Your task to perform on an android device: Open Google Image 0: 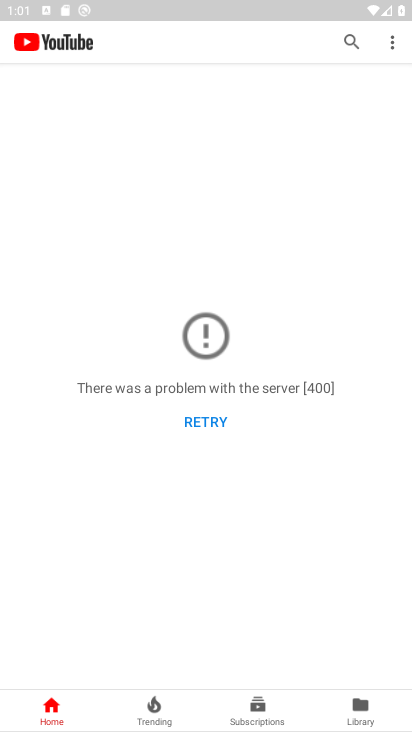
Step 0: press home button
Your task to perform on an android device: Open Google Image 1: 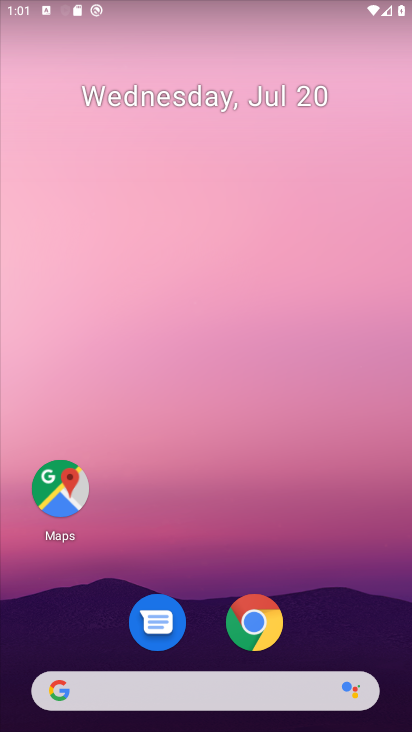
Step 1: drag from (198, 568) to (157, 230)
Your task to perform on an android device: Open Google Image 2: 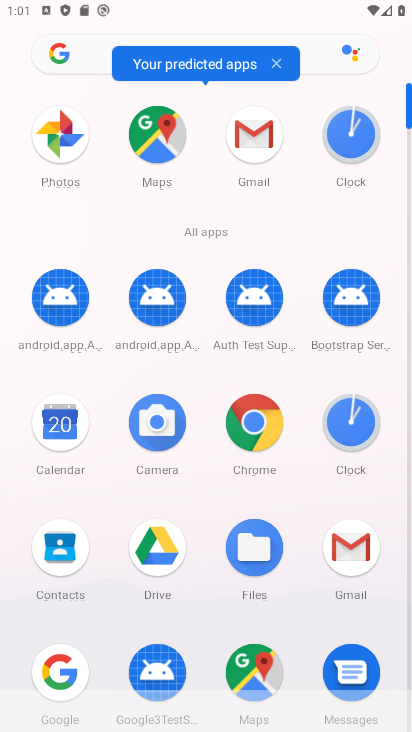
Step 2: click (63, 669)
Your task to perform on an android device: Open Google Image 3: 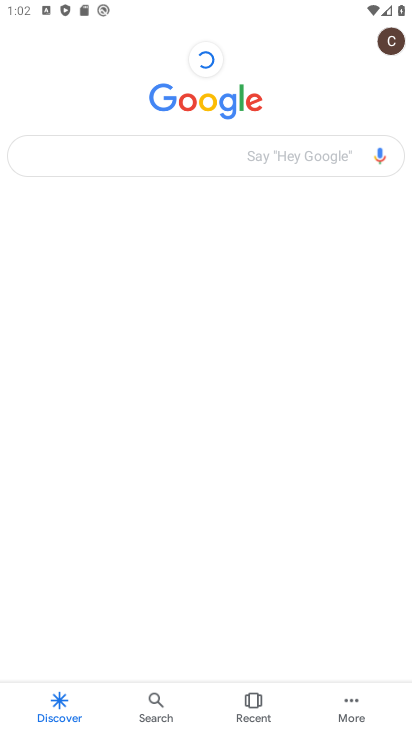
Step 3: task complete